Your task to perform on an android device: Open calendar and show me the third week of next month Image 0: 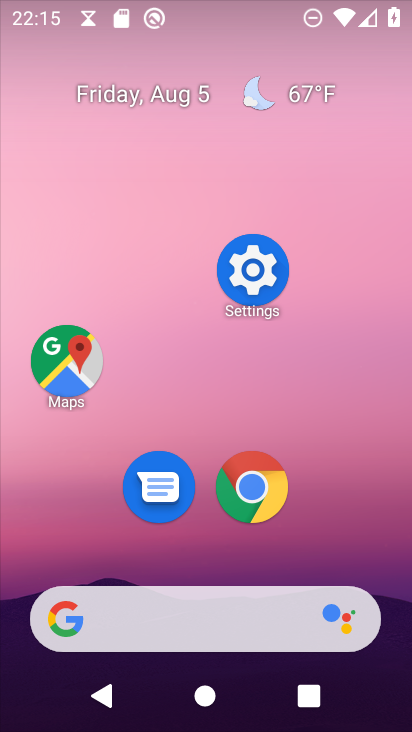
Step 0: press home button
Your task to perform on an android device: Open calendar and show me the third week of next month Image 1: 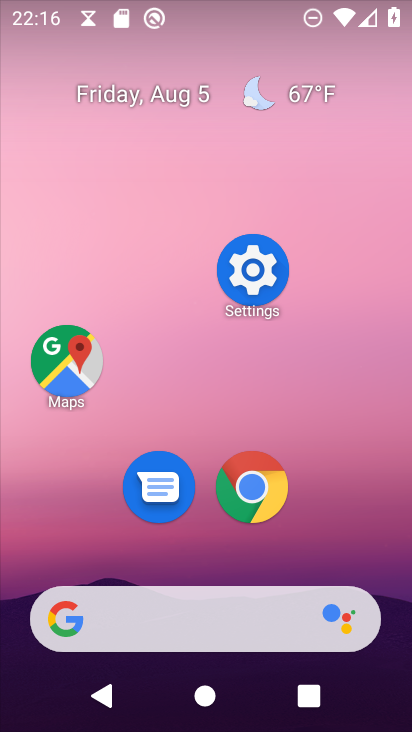
Step 1: drag from (189, 613) to (290, 4)
Your task to perform on an android device: Open calendar and show me the third week of next month Image 2: 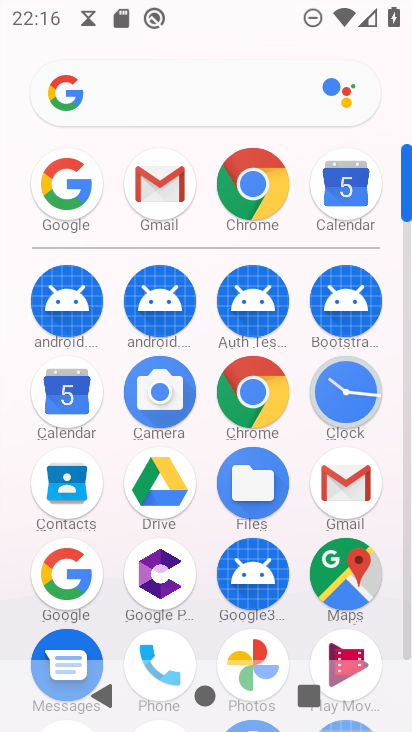
Step 2: click (68, 396)
Your task to perform on an android device: Open calendar and show me the third week of next month Image 3: 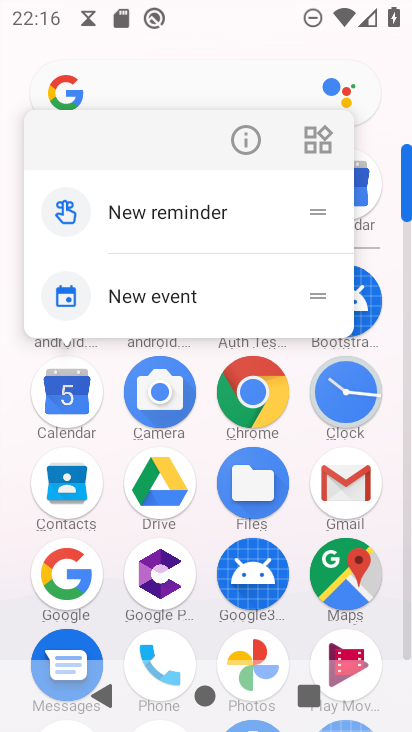
Step 3: click (69, 396)
Your task to perform on an android device: Open calendar and show me the third week of next month Image 4: 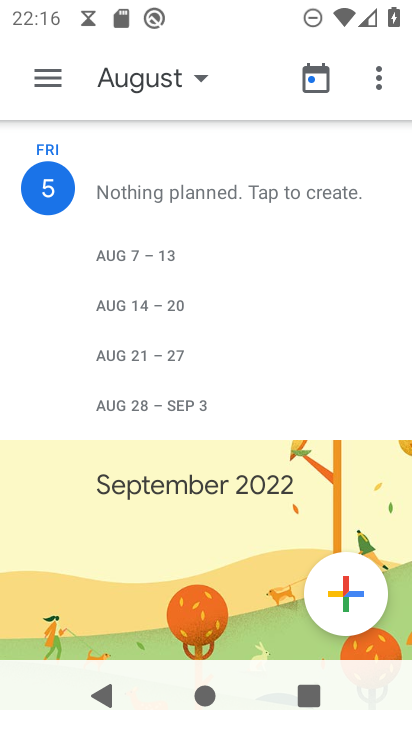
Step 4: click (163, 80)
Your task to perform on an android device: Open calendar and show me the third week of next month Image 5: 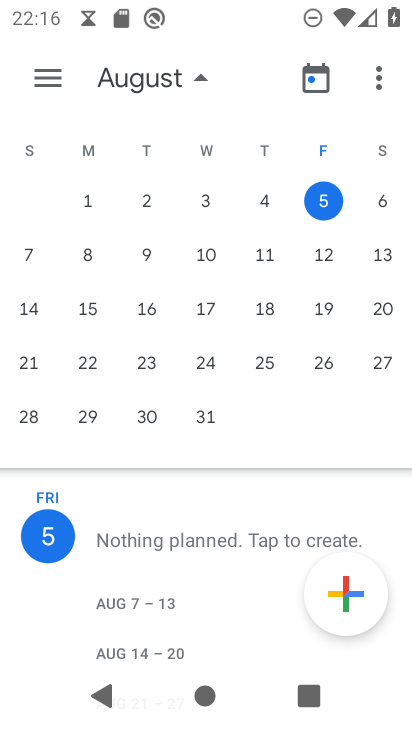
Step 5: drag from (372, 329) to (16, 363)
Your task to perform on an android device: Open calendar and show me the third week of next month Image 6: 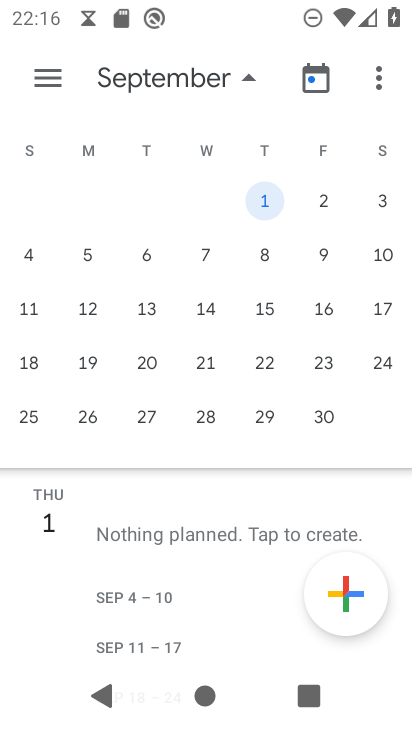
Step 6: click (21, 304)
Your task to perform on an android device: Open calendar and show me the third week of next month Image 7: 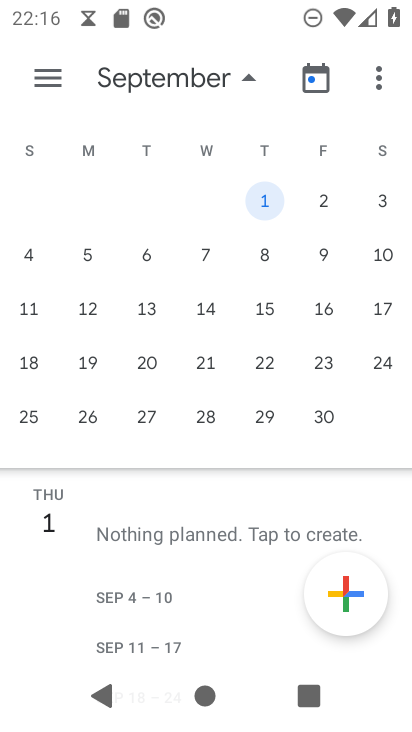
Step 7: click (44, 310)
Your task to perform on an android device: Open calendar and show me the third week of next month Image 8: 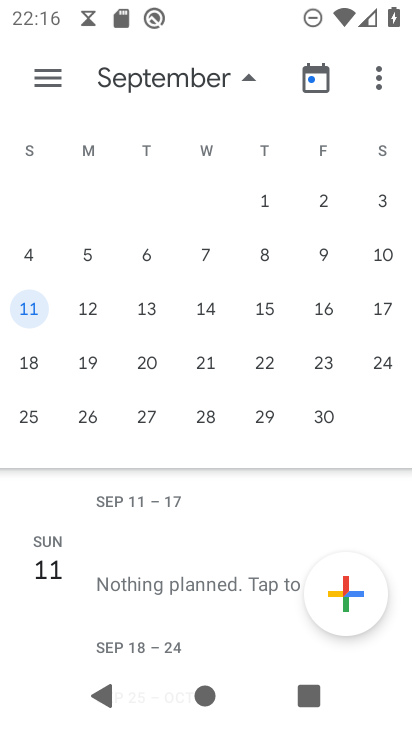
Step 8: click (59, 76)
Your task to perform on an android device: Open calendar and show me the third week of next month Image 9: 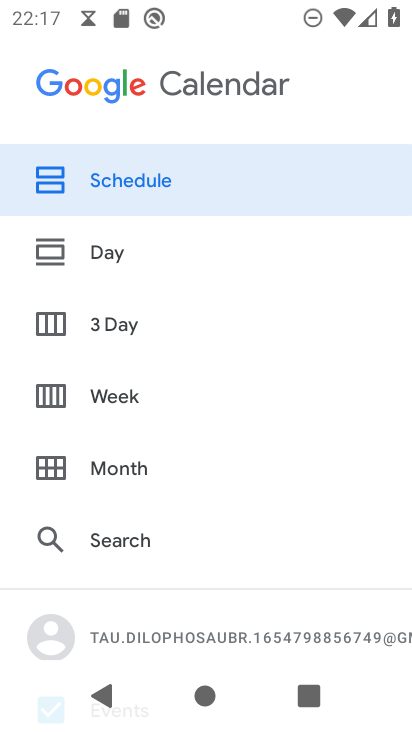
Step 9: click (122, 401)
Your task to perform on an android device: Open calendar and show me the third week of next month Image 10: 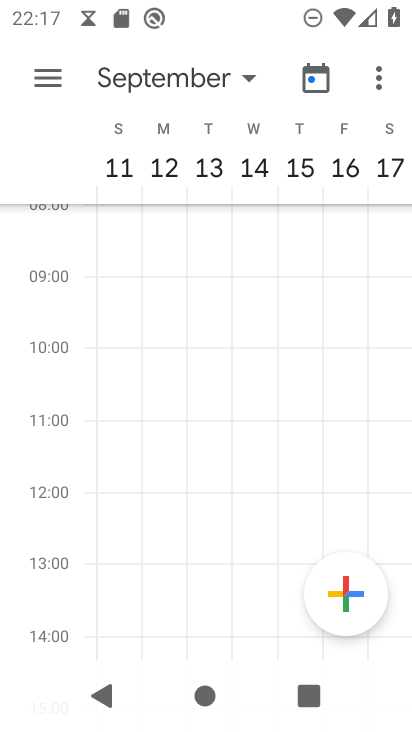
Step 10: task complete